Your task to perform on an android device: toggle show notifications on the lock screen Image 0: 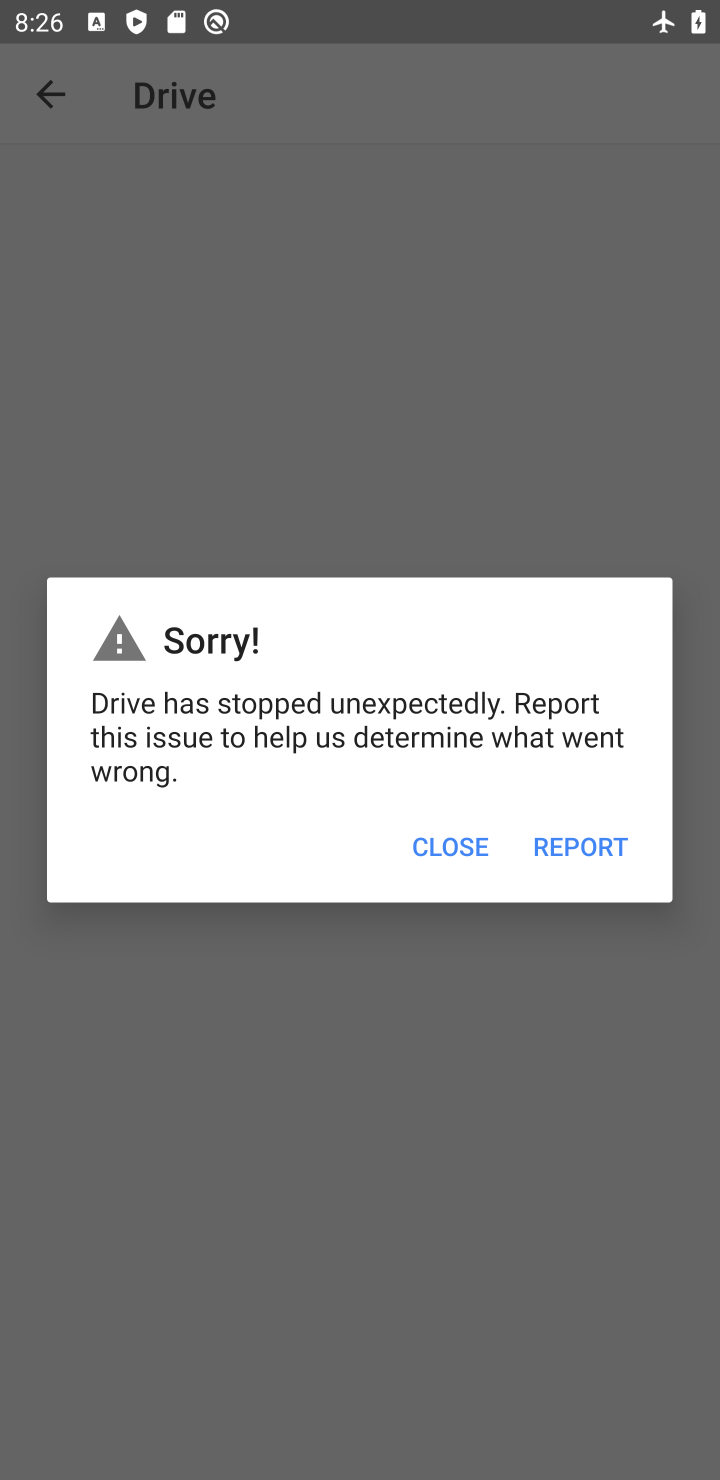
Step 0: press home button
Your task to perform on an android device: toggle show notifications on the lock screen Image 1: 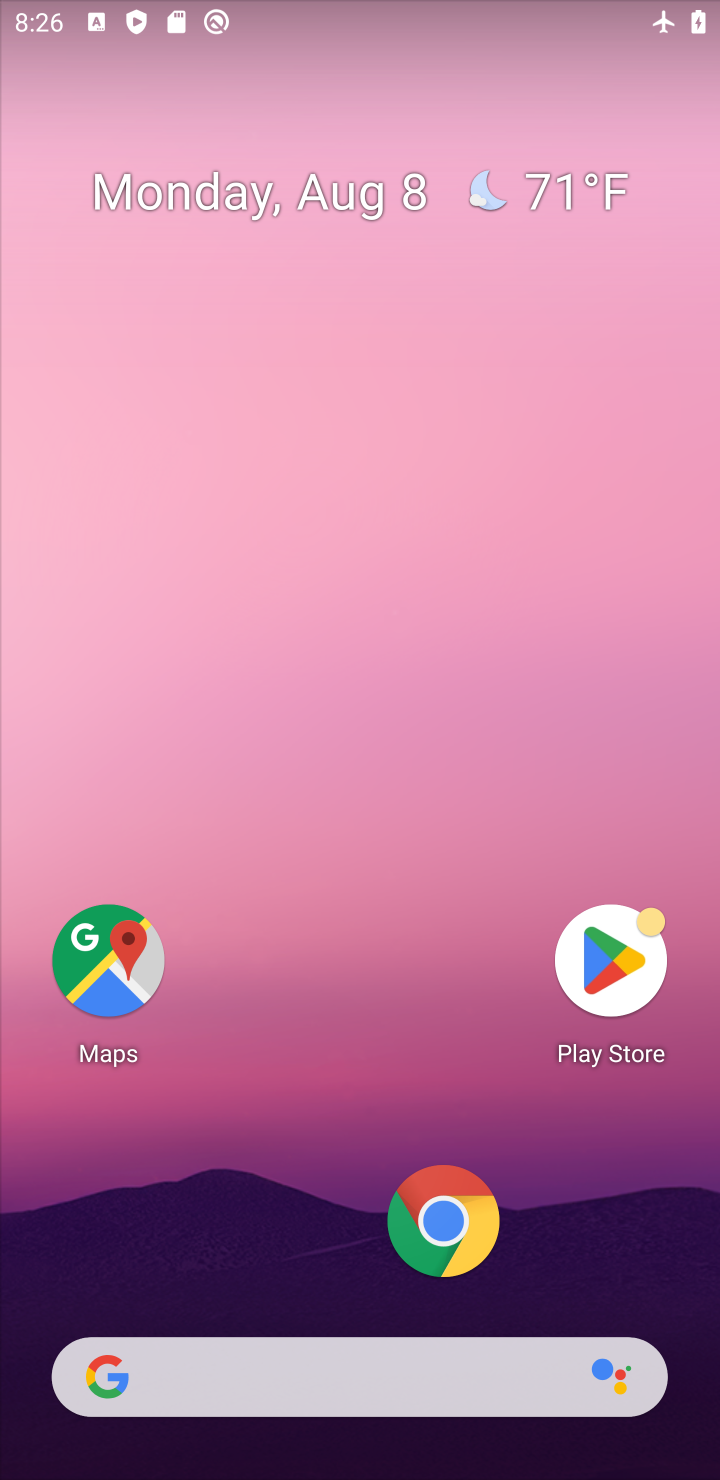
Step 1: drag from (301, 1281) to (418, 93)
Your task to perform on an android device: toggle show notifications on the lock screen Image 2: 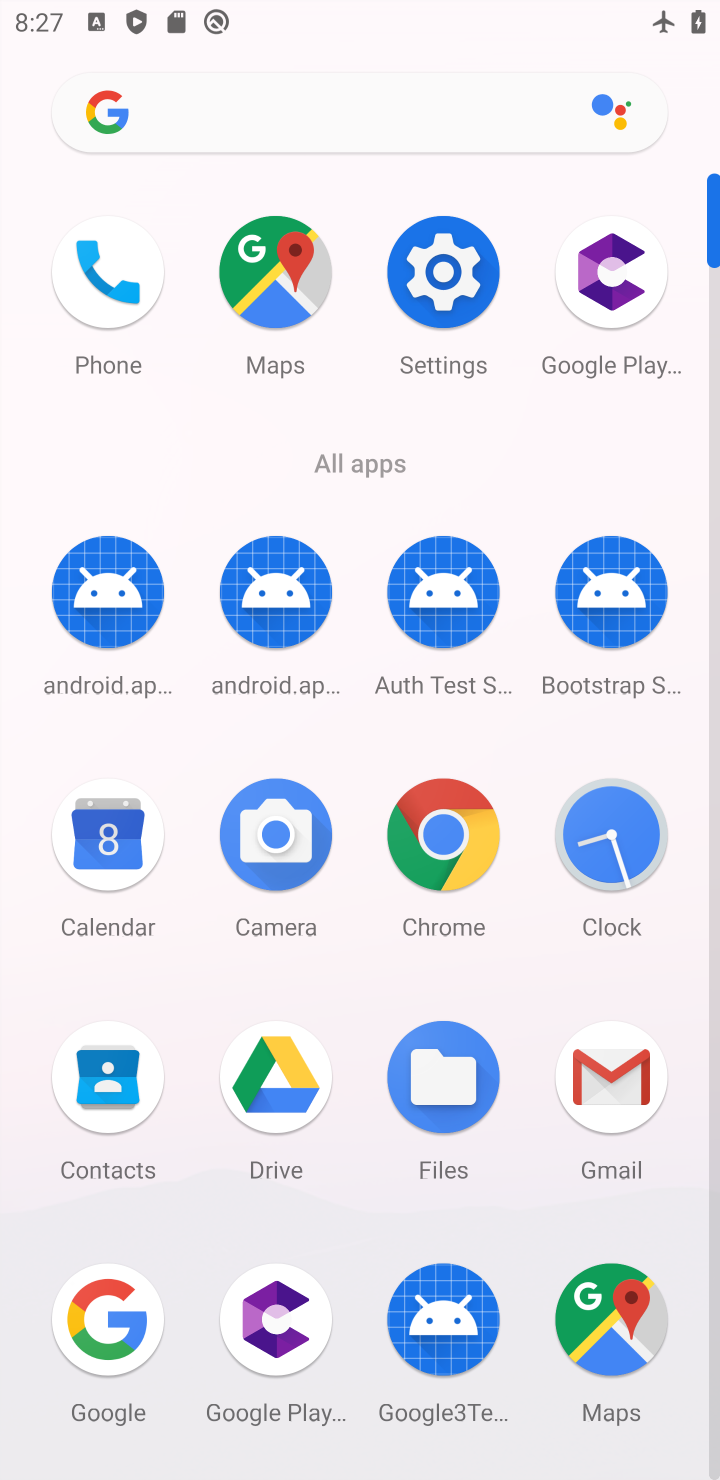
Step 2: click (446, 268)
Your task to perform on an android device: toggle show notifications on the lock screen Image 3: 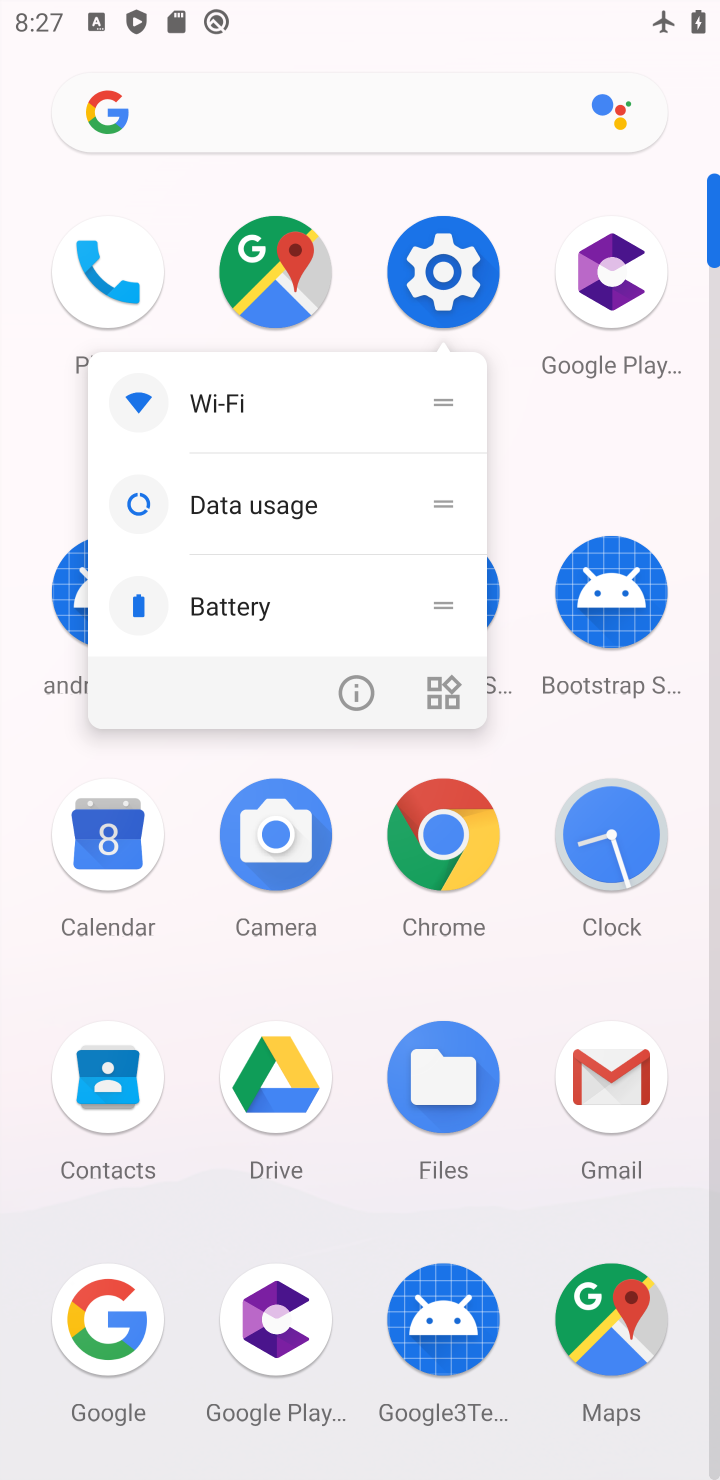
Step 3: click (431, 276)
Your task to perform on an android device: toggle show notifications on the lock screen Image 4: 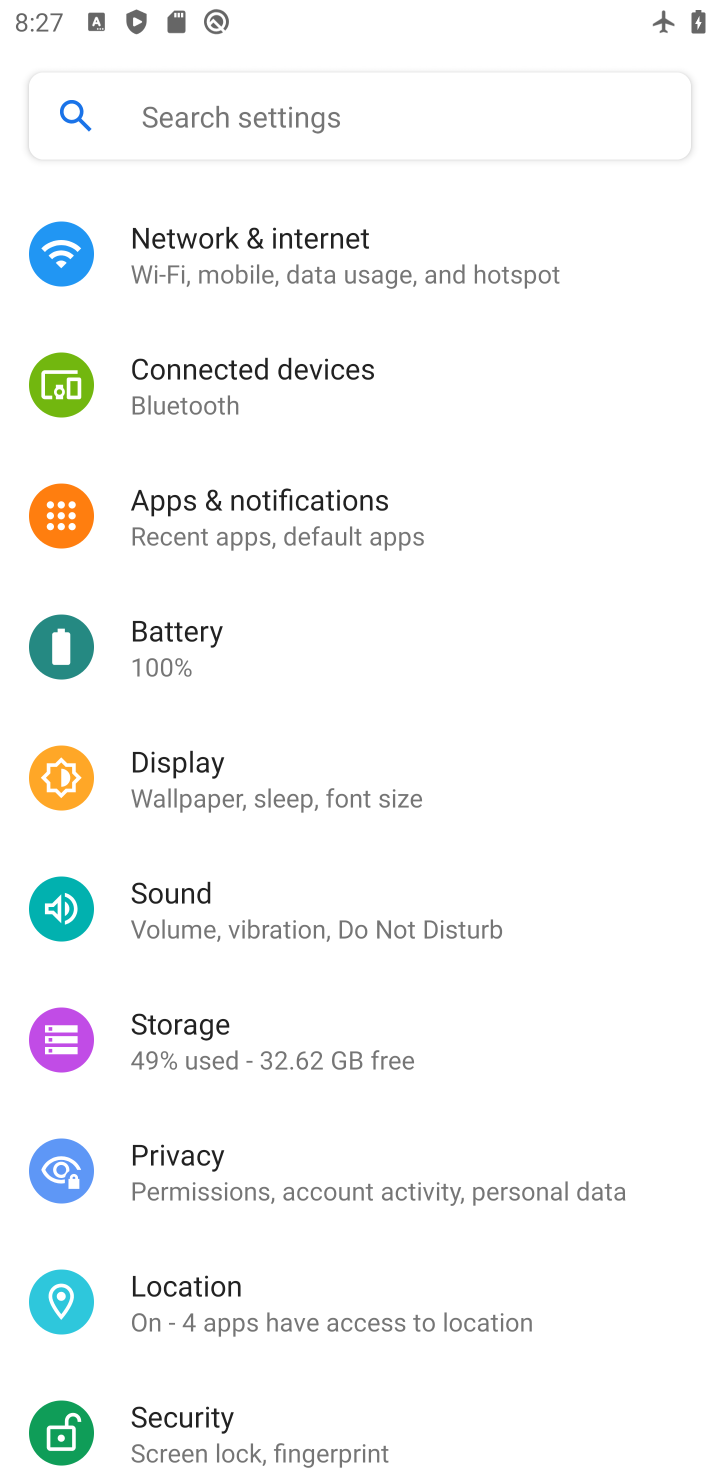
Step 4: click (395, 546)
Your task to perform on an android device: toggle show notifications on the lock screen Image 5: 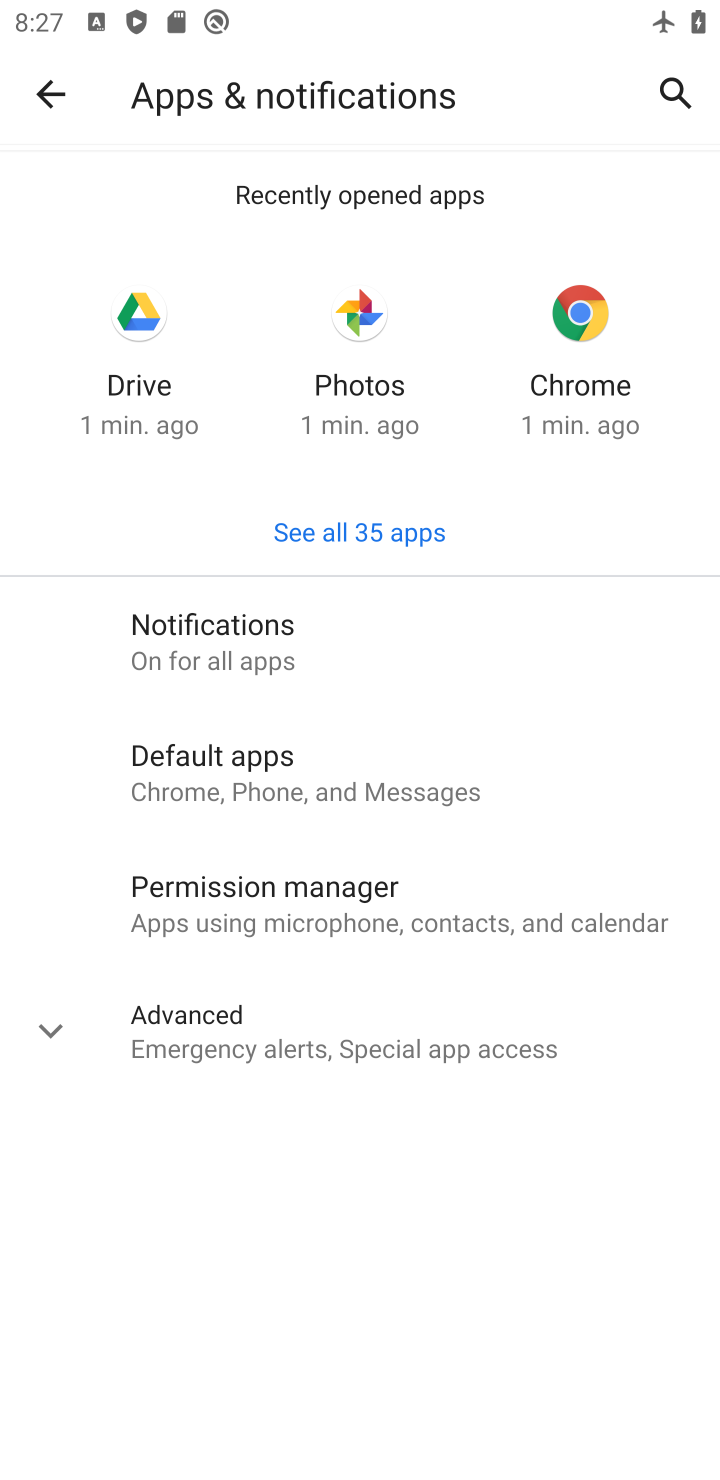
Step 5: click (320, 638)
Your task to perform on an android device: toggle show notifications on the lock screen Image 6: 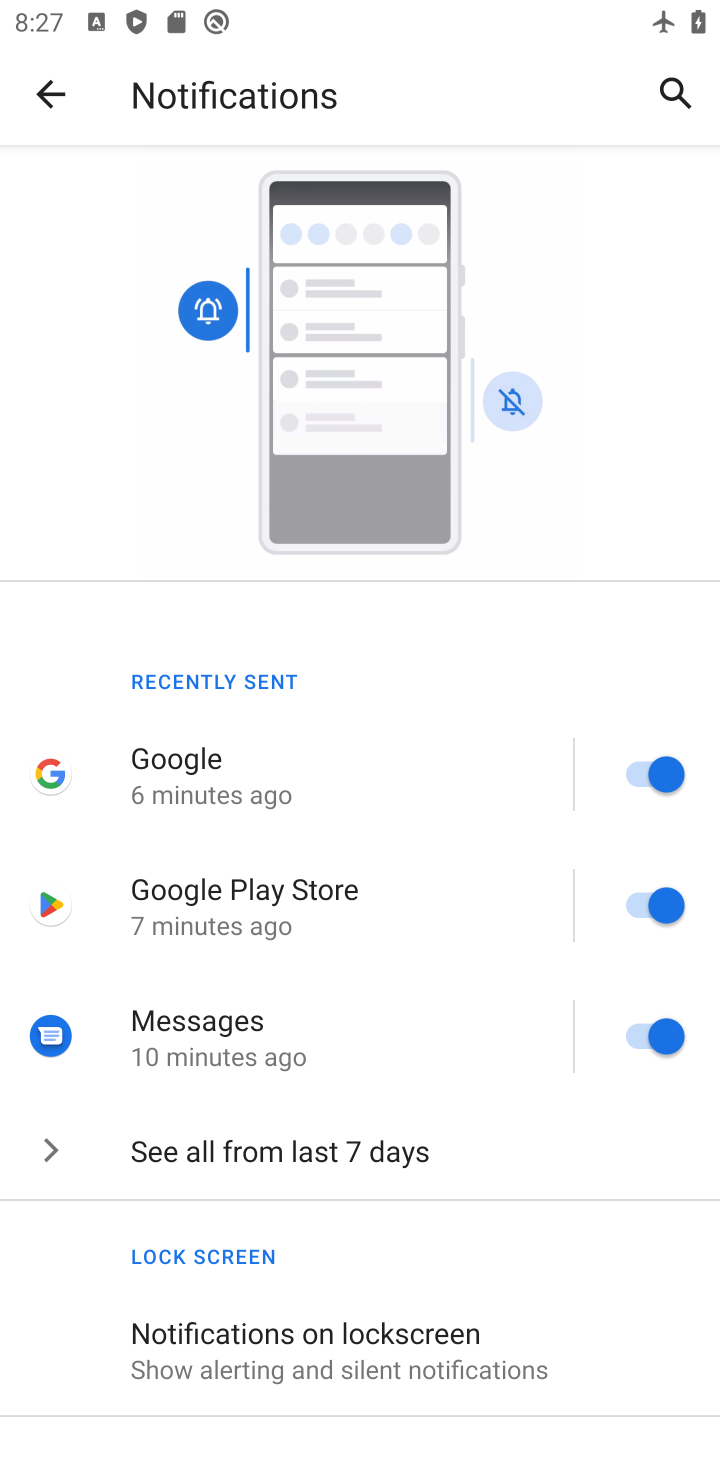
Step 6: click (380, 1336)
Your task to perform on an android device: toggle show notifications on the lock screen Image 7: 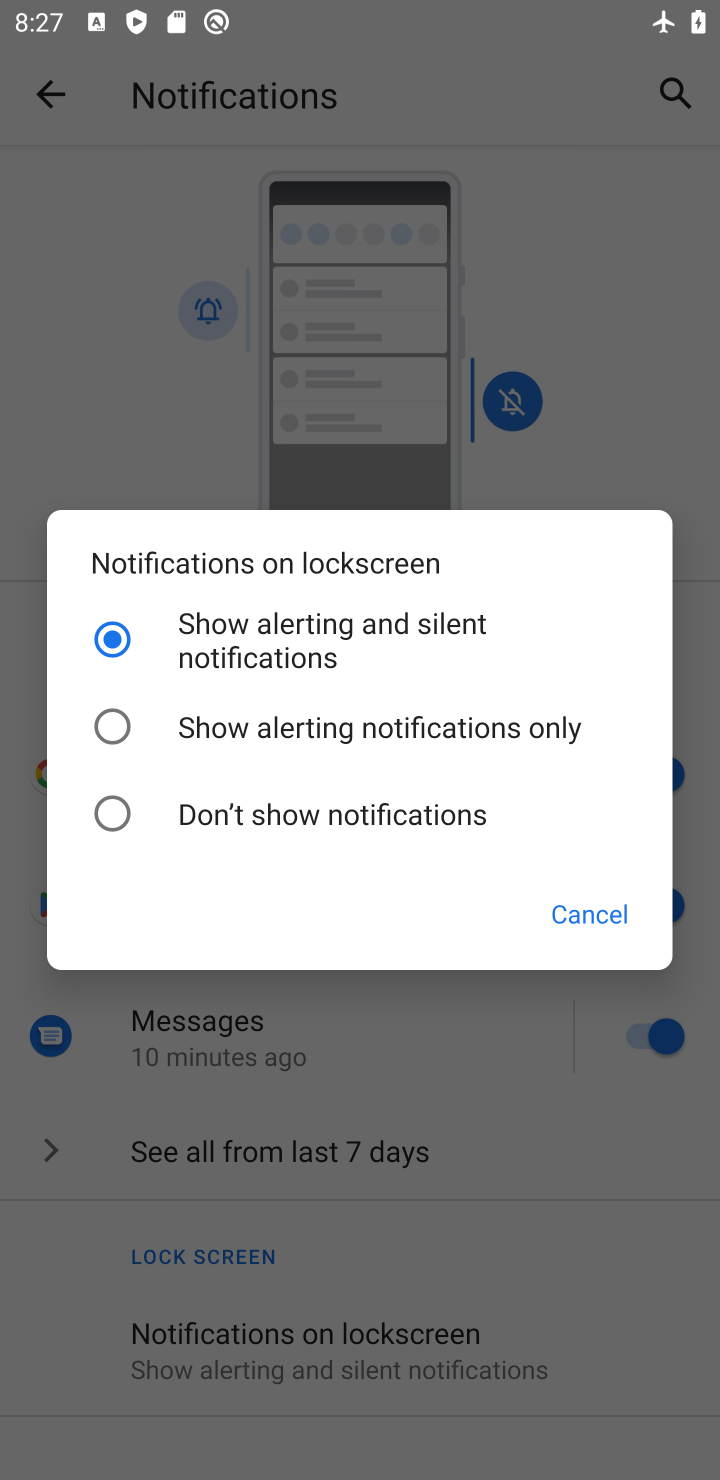
Step 7: click (105, 733)
Your task to perform on an android device: toggle show notifications on the lock screen Image 8: 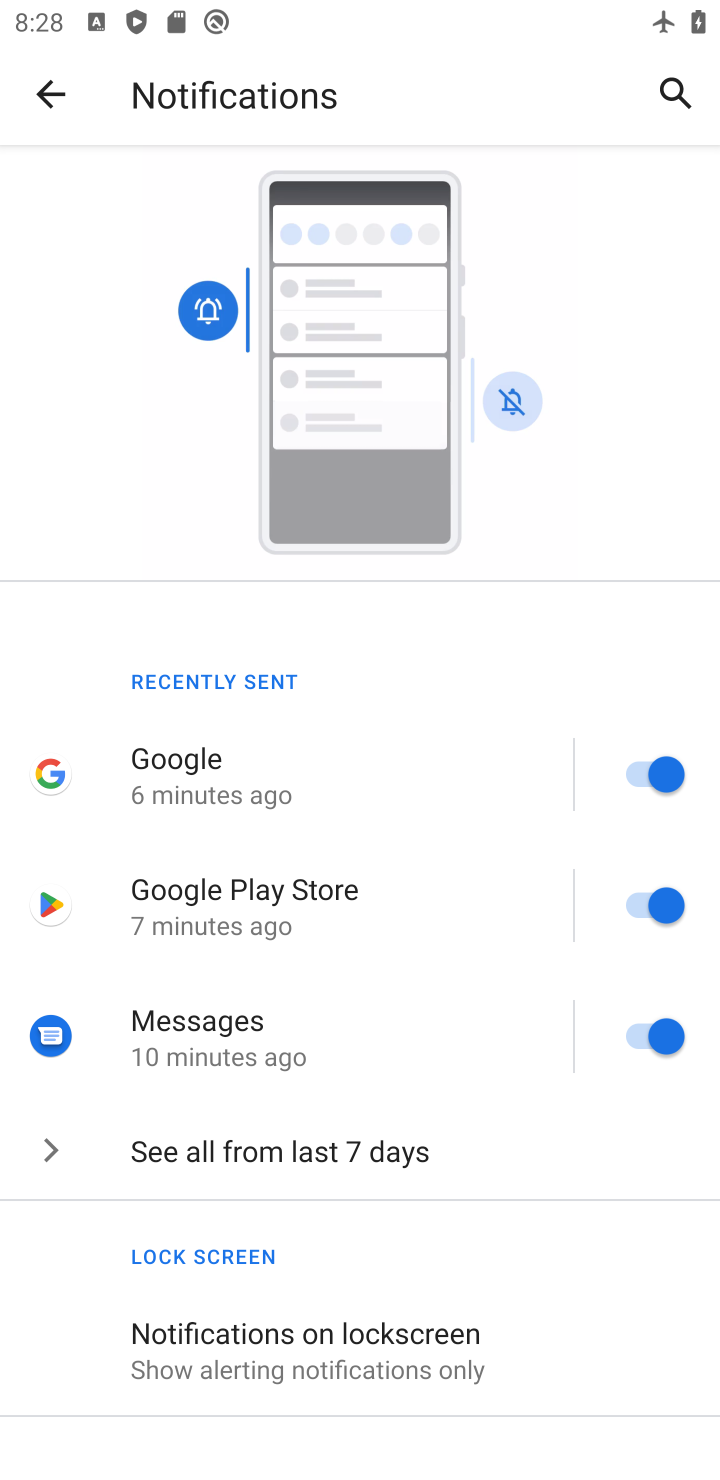
Step 8: task complete